Your task to perform on an android device: make emails show in primary in the gmail app Image 0: 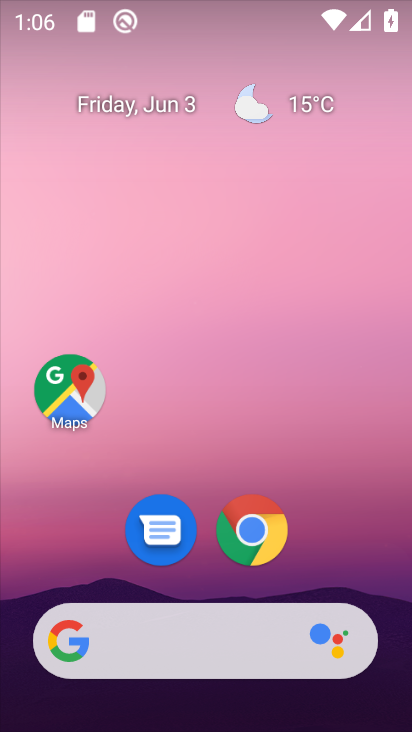
Step 0: drag from (325, 553) to (312, 6)
Your task to perform on an android device: make emails show in primary in the gmail app Image 1: 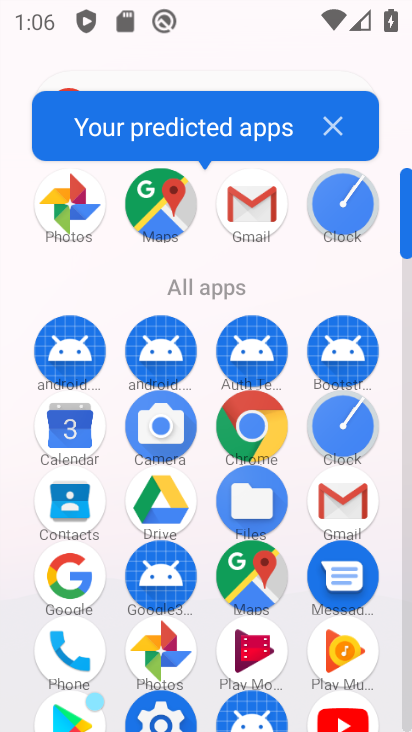
Step 1: click (340, 506)
Your task to perform on an android device: make emails show in primary in the gmail app Image 2: 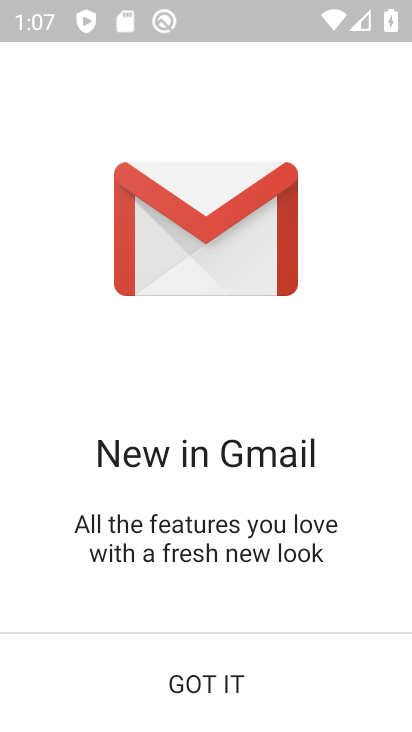
Step 2: click (229, 696)
Your task to perform on an android device: make emails show in primary in the gmail app Image 3: 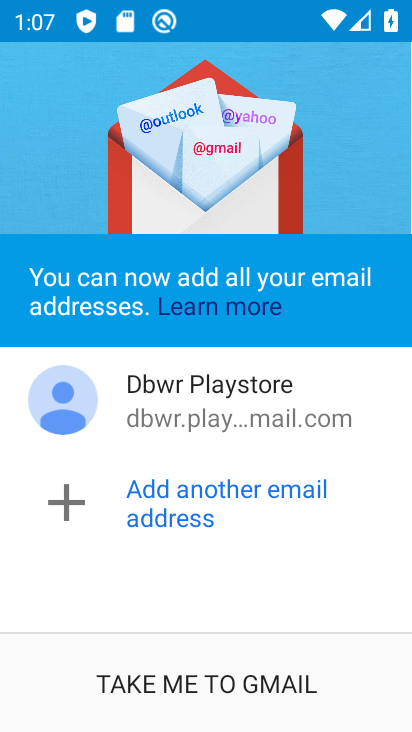
Step 3: click (226, 686)
Your task to perform on an android device: make emails show in primary in the gmail app Image 4: 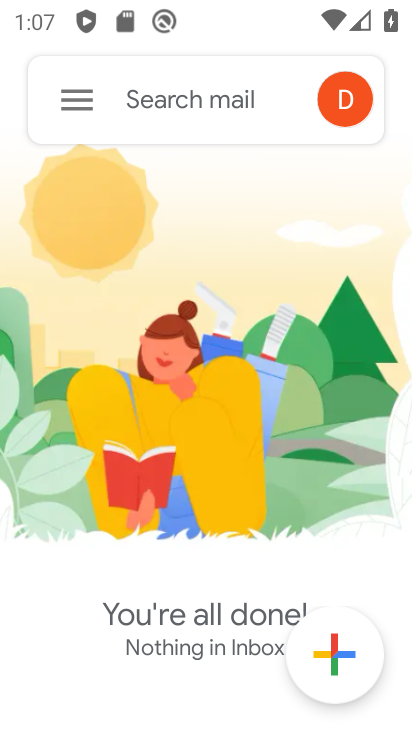
Step 4: click (66, 93)
Your task to perform on an android device: make emails show in primary in the gmail app Image 5: 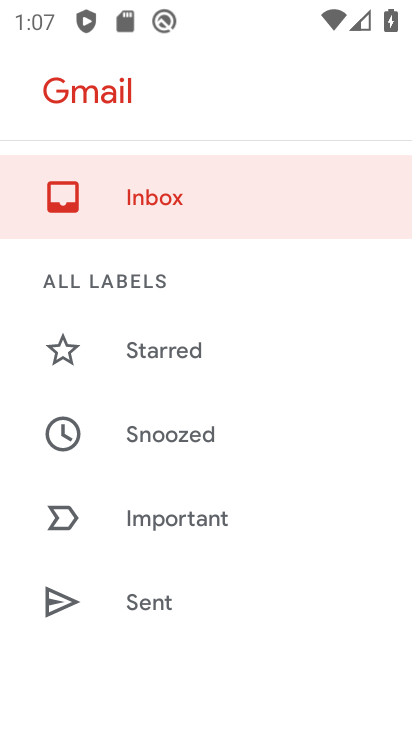
Step 5: drag from (203, 579) to (315, 0)
Your task to perform on an android device: make emails show in primary in the gmail app Image 6: 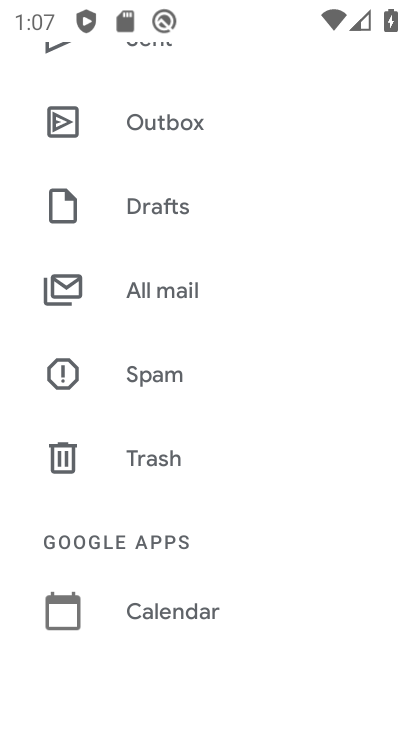
Step 6: drag from (190, 598) to (226, 109)
Your task to perform on an android device: make emails show in primary in the gmail app Image 7: 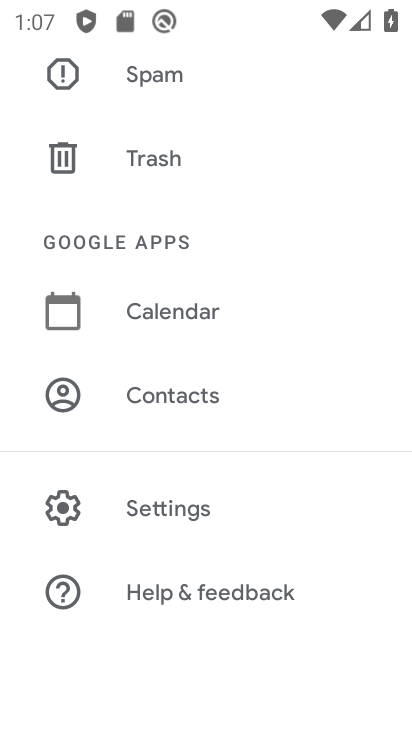
Step 7: click (184, 497)
Your task to perform on an android device: make emails show in primary in the gmail app Image 8: 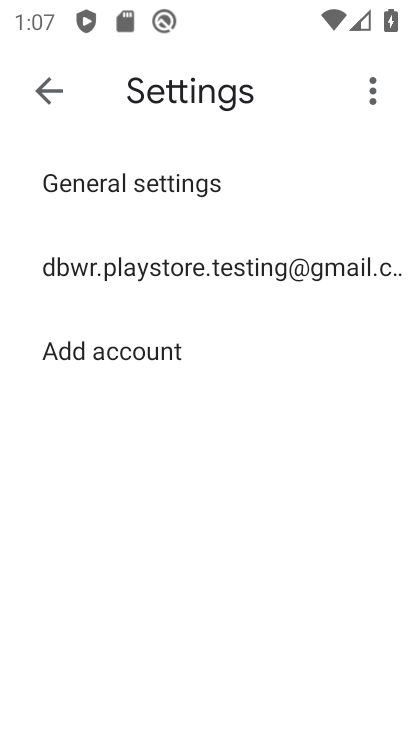
Step 8: click (149, 278)
Your task to perform on an android device: make emails show in primary in the gmail app Image 9: 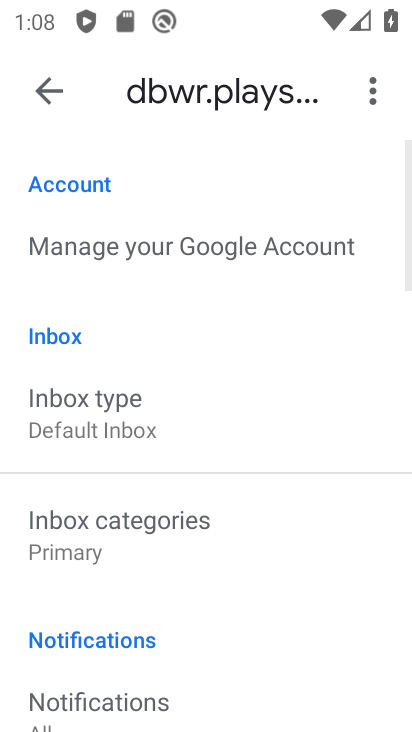
Step 9: click (75, 423)
Your task to perform on an android device: make emails show in primary in the gmail app Image 10: 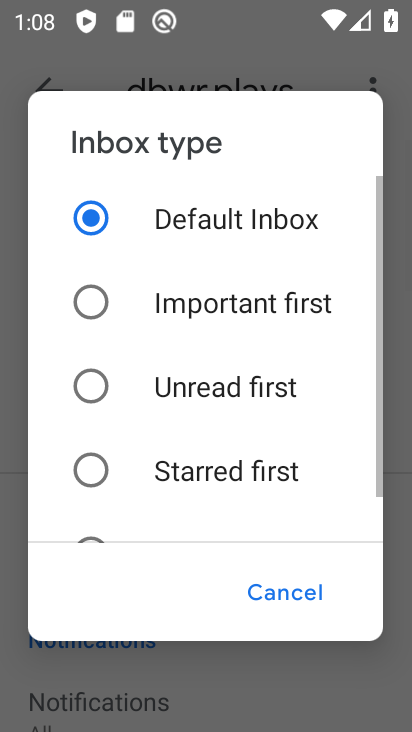
Step 10: click (204, 211)
Your task to perform on an android device: make emails show in primary in the gmail app Image 11: 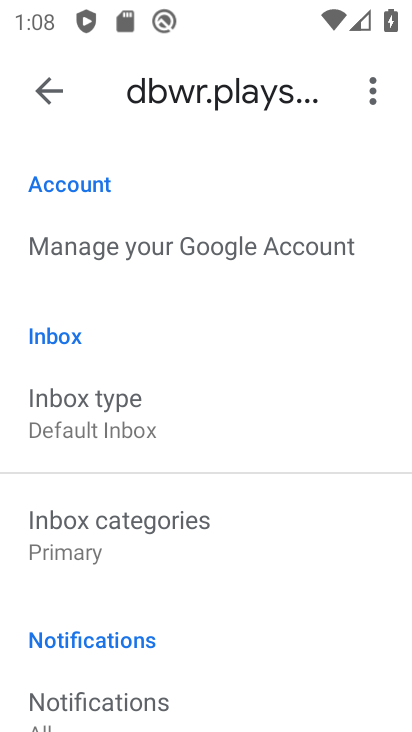
Step 11: task complete